Your task to perform on an android device: turn on location history Image 0: 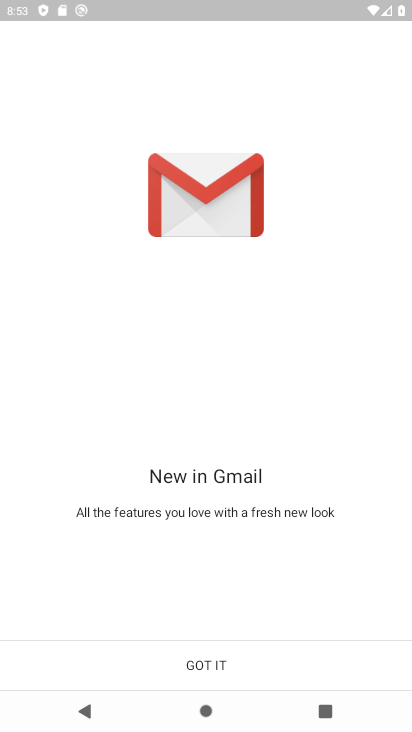
Step 0: press home button
Your task to perform on an android device: turn on location history Image 1: 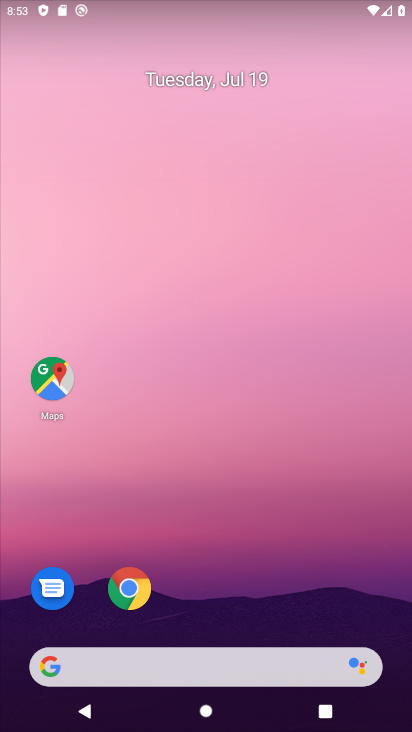
Step 1: click (51, 390)
Your task to perform on an android device: turn on location history Image 2: 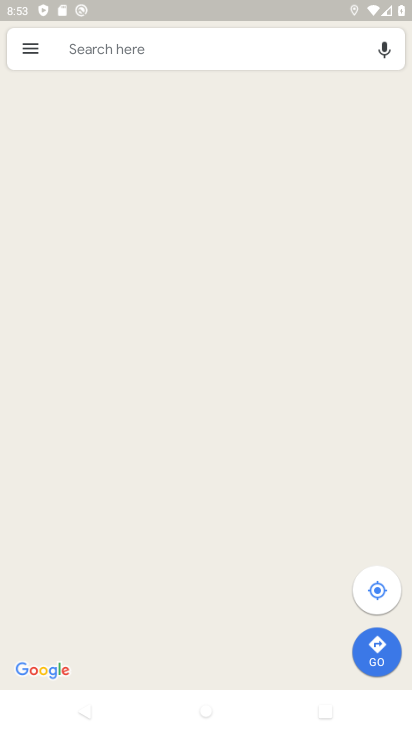
Step 2: click (26, 53)
Your task to perform on an android device: turn on location history Image 3: 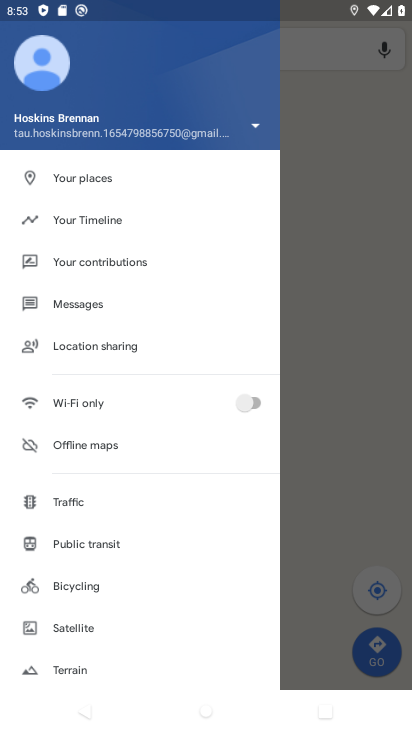
Step 3: click (88, 213)
Your task to perform on an android device: turn on location history Image 4: 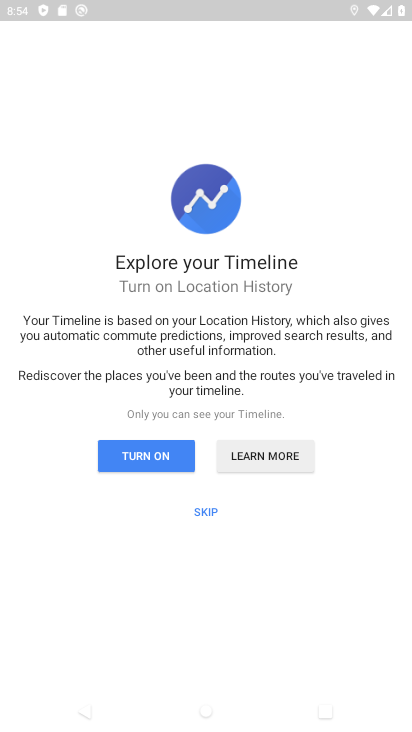
Step 4: click (158, 462)
Your task to perform on an android device: turn on location history Image 5: 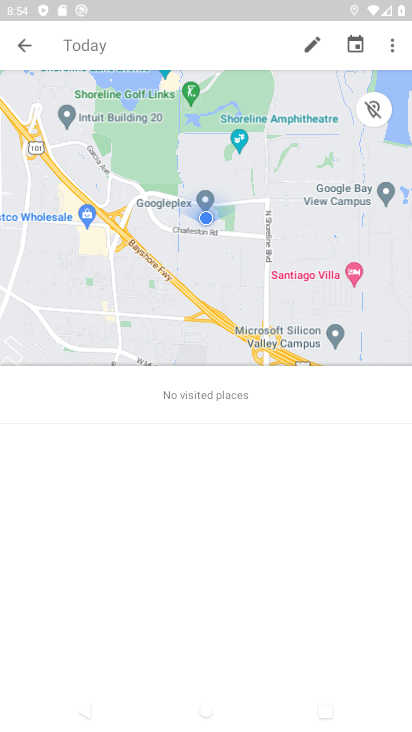
Step 5: click (392, 47)
Your task to perform on an android device: turn on location history Image 6: 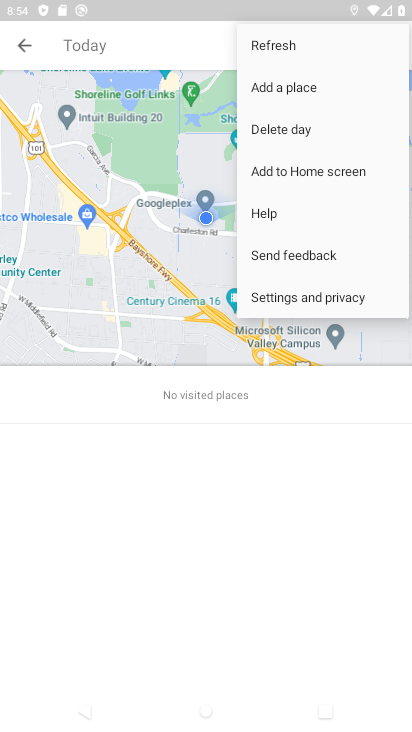
Step 6: click (304, 301)
Your task to perform on an android device: turn on location history Image 7: 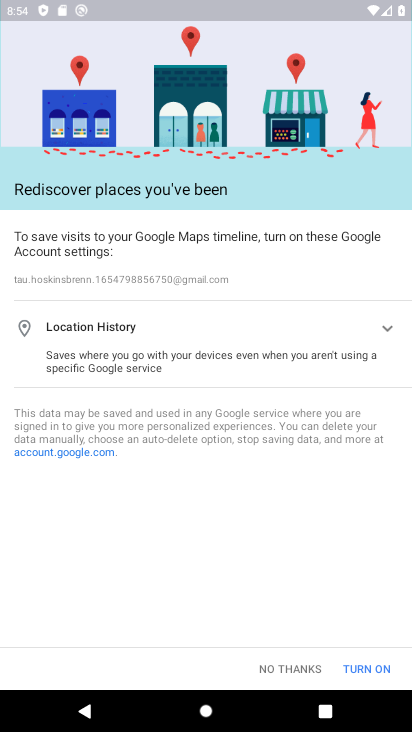
Step 7: click (363, 664)
Your task to perform on an android device: turn on location history Image 8: 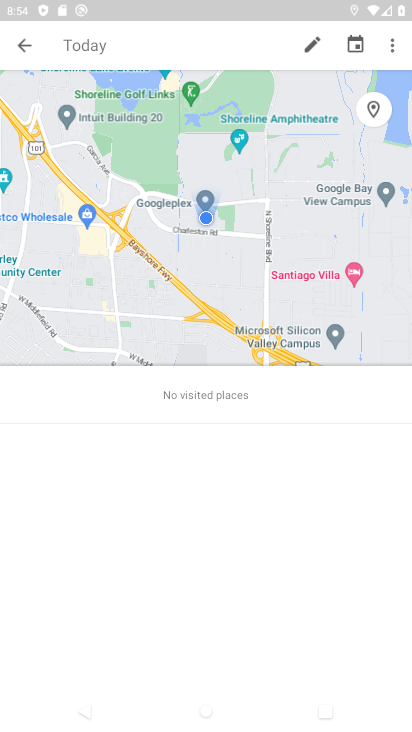
Step 8: task complete